Your task to perform on an android device: open the mobile data screen to see how much data has been used Image 0: 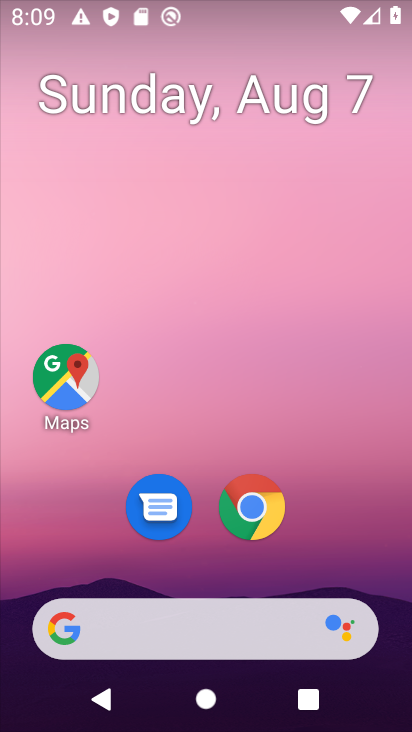
Step 0: drag from (233, 627) to (335, 58)
Your task to perform on an android device: open the mobile data screen to see how much data has been used Image 1: 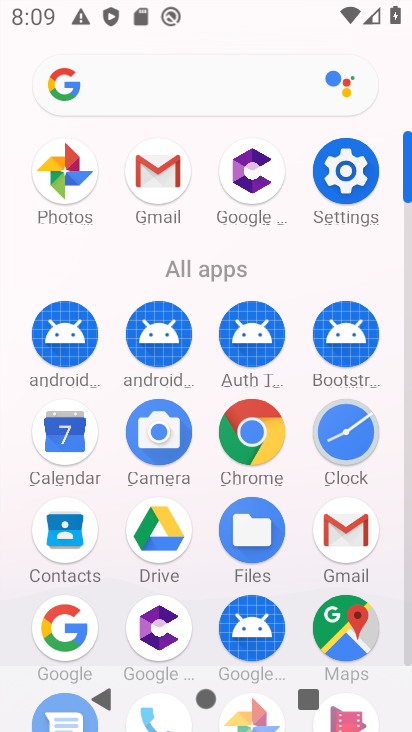
Step 1: click (341, 171)
Your task to perform on an android device: open the mobile data screen to see how much data has been used Image 2: 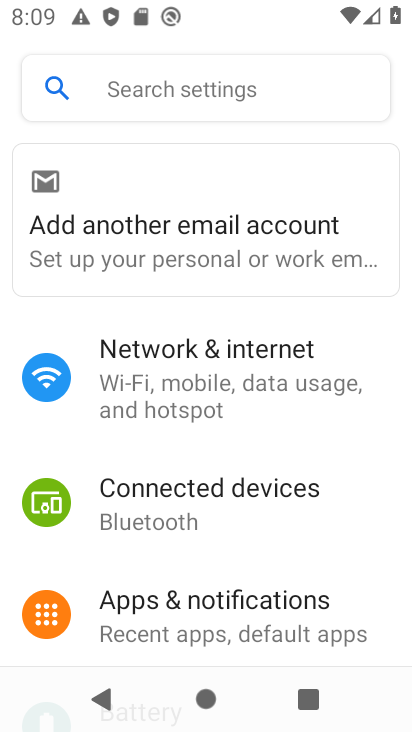
Step 2: click (207, 364)
Your task to perform on an android device: open the mobile data screen to see how much data has been used Image 3: 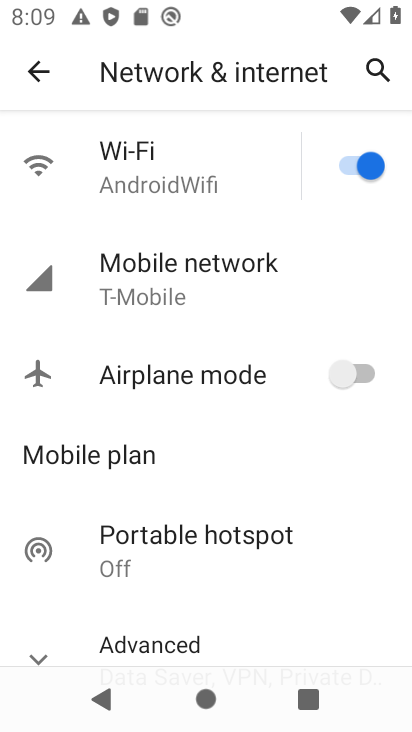
Step 3: click (175, 287)
Your task to perform on an android device: open the mobile data screen to see how much data has been used Image 4: 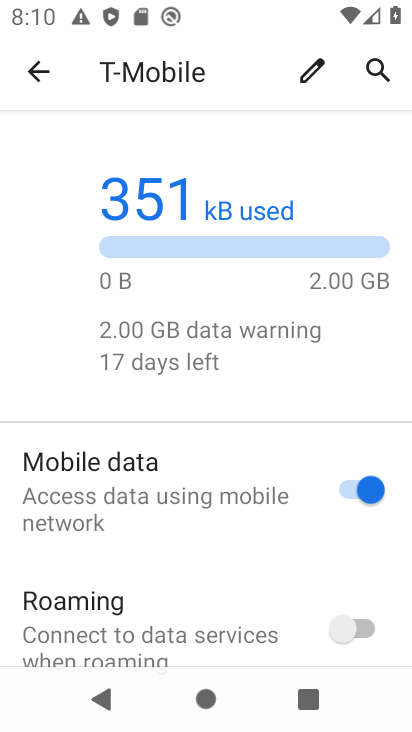
Step 4: task complete